Your task to perform on an android device: Go to display settings Image 0: 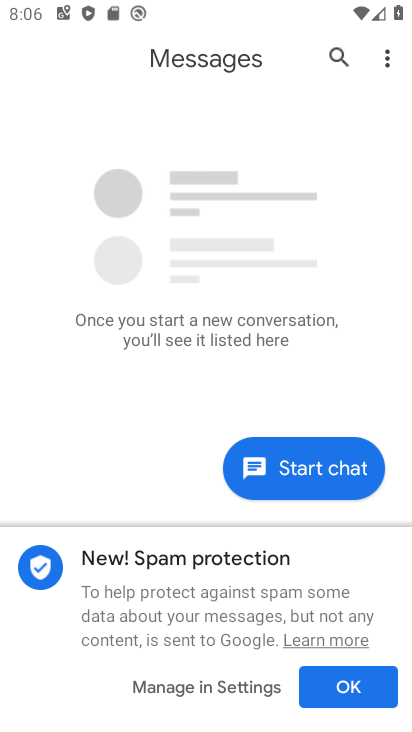
Step 0: press home button
Your task to perform on an android device: Go to display settings Image 1: 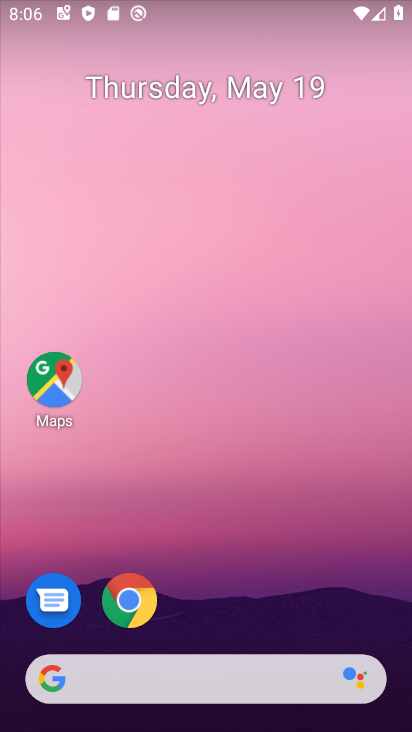
Step 1: drag from (220, 640) to (236, 11)
Your task to perform on an android device: Go to display settings Image 2: 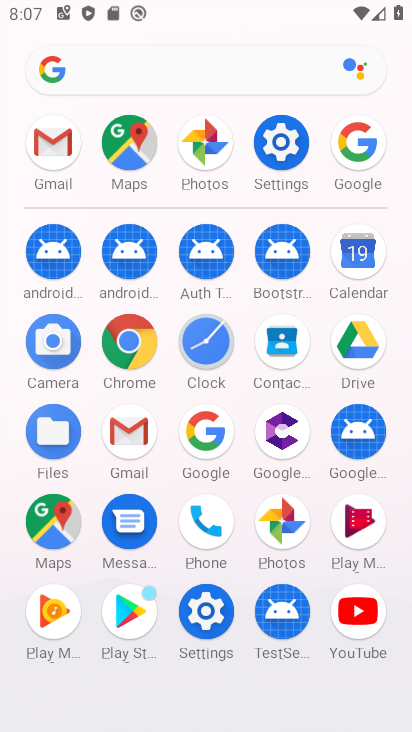
Step 2: click (279, 147)
Your task to perform on an android device: Go to display settings Image 3: 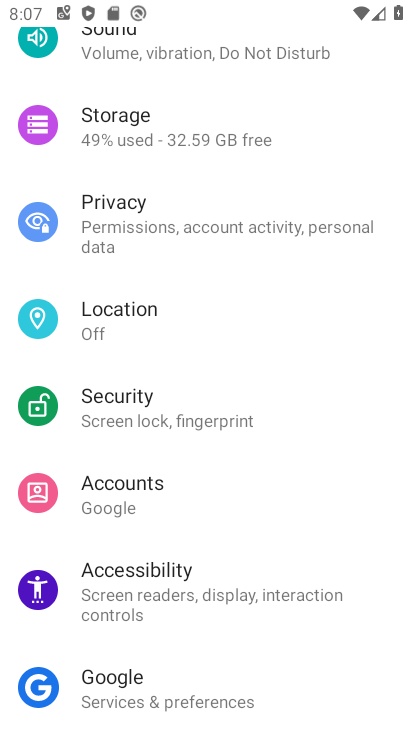
Step 3: drag from (251, 338) to (249, 599)
Your task to perform on an android device: Go to display settings Image 4: 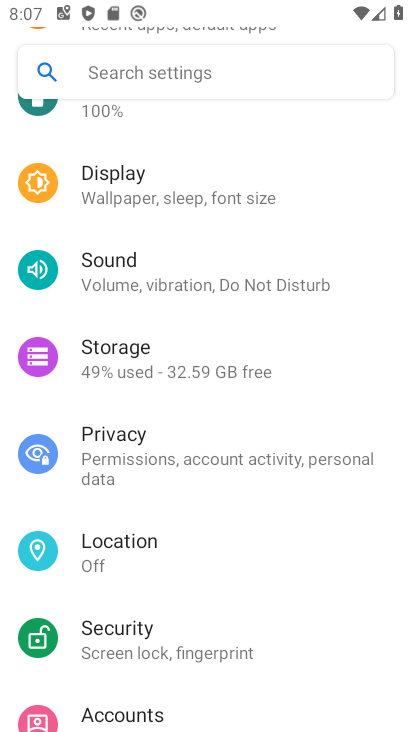
Step 4: click (115, 202)
Your task to perform on an android device: Go to display settings Image 5: 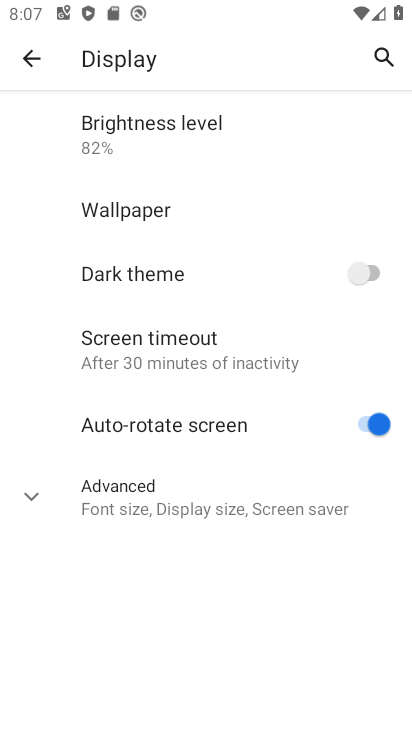
Step 5: task complete